Your task to perform on an android device: check battery use Image 0: 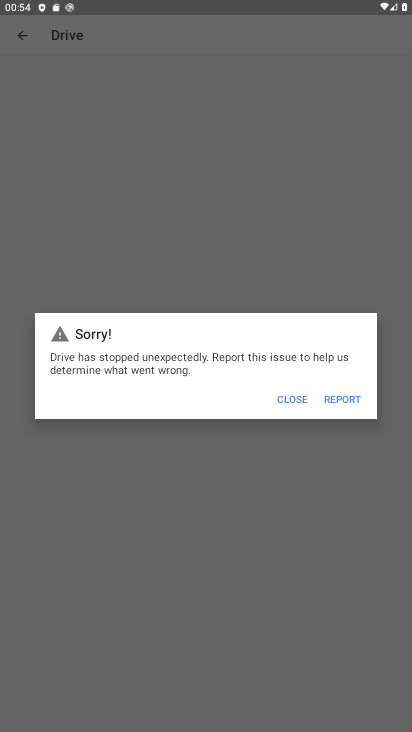
Step 0: drag from (273, 625) to (324, 3)
Your task to perform on an android device: check battery use Image 1: 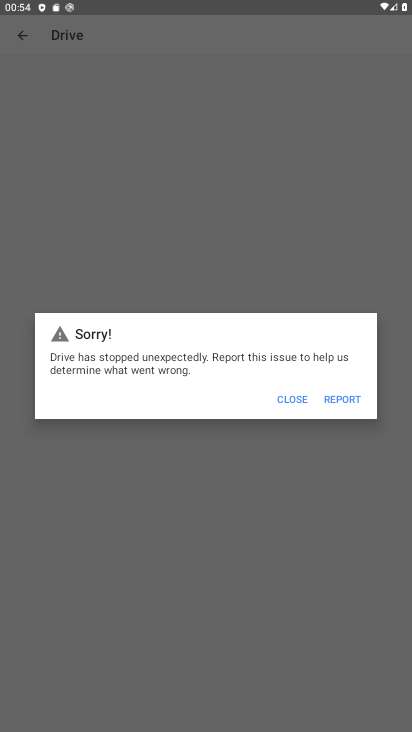
Step 1: press home button
Your task to perform on an android device: check battery use Image 2: 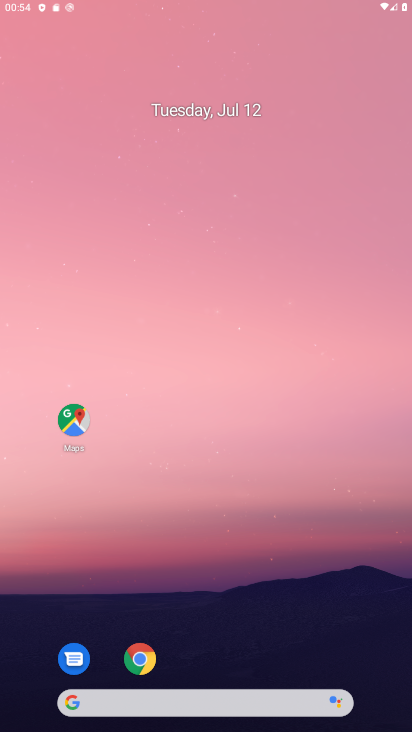
Step 2: drag from (202, 630) to (253, 73)
Your task to perform on an android device: check battery use Image 3: 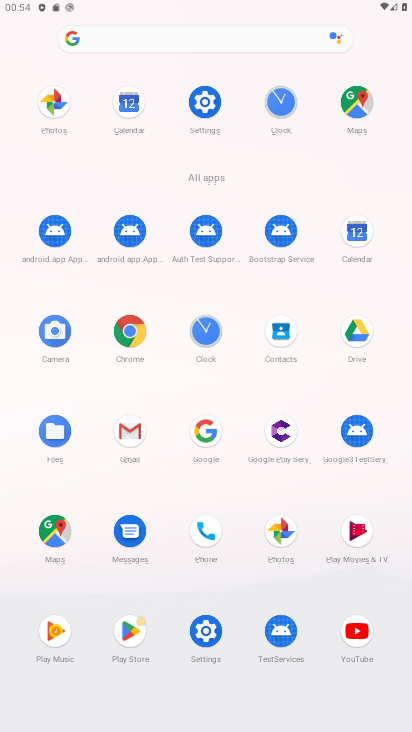
Step 3: click (189, 103)
Your task to perform on an android device: check battery use Image 4: 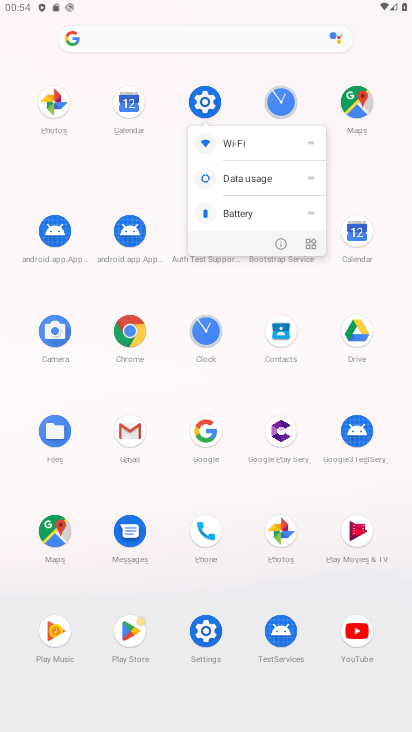
Step 4: click (277, 240)
Your task to perform on an android device: check battery use Image 5: 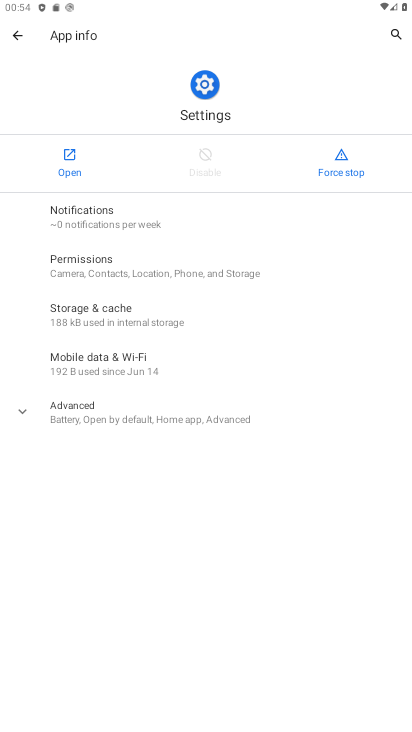
Step 5: click (65, 162)
Your task to perform on an android device: check battery use Image 6: 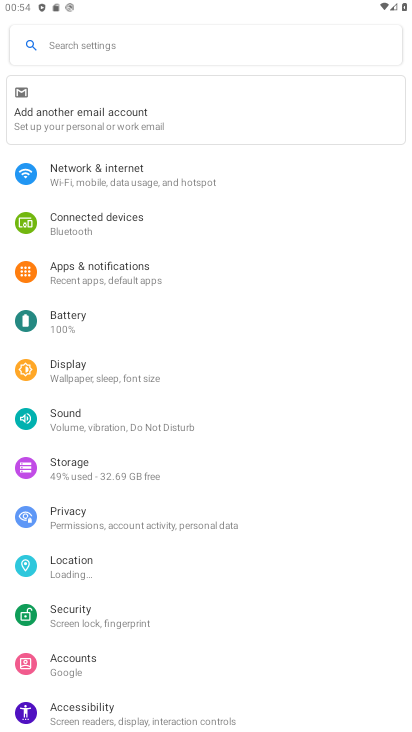
Step 6: click (77, 327)
Your task to perform on an android device: check battery use Image 7: 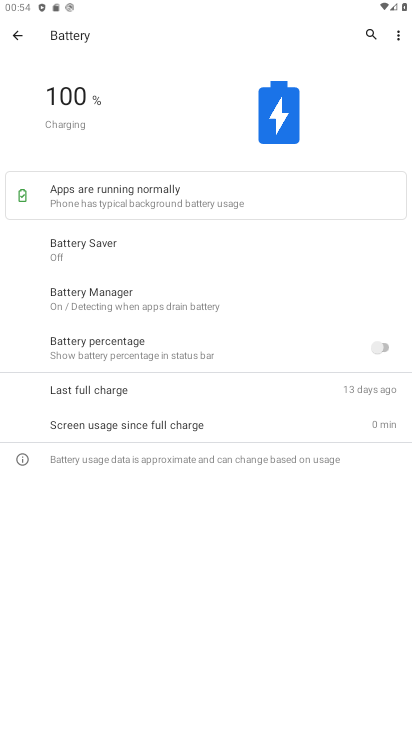
Step 7: click (395, 36)
Your task to perform on an android device: check battery use Image 8: 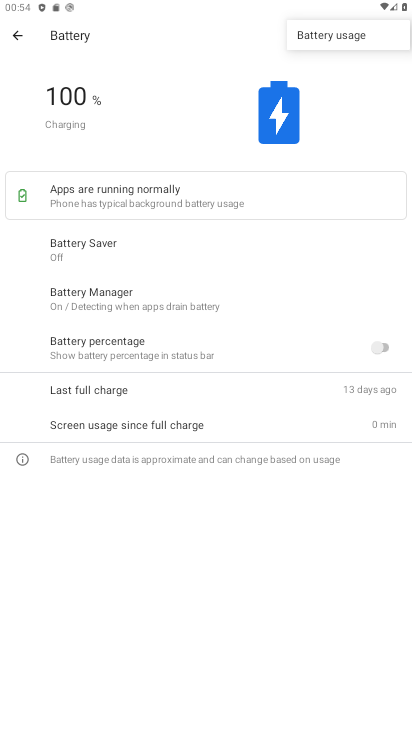
Step 8: click (327, 31)
Your task to perform on an android device: check battery use Image 9: 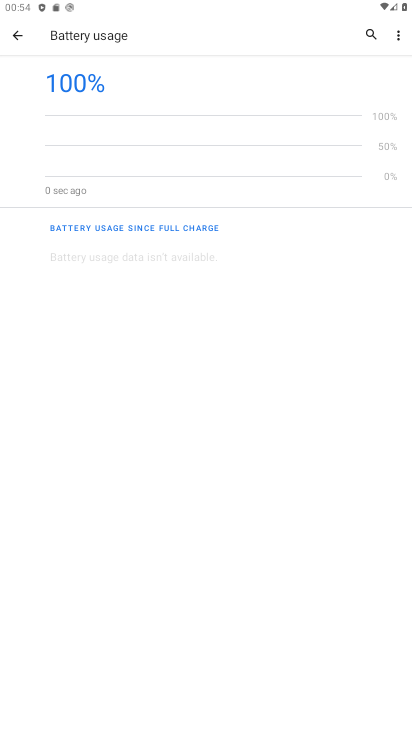
Step 9: task complete